Your task to perform on an android device: Open privacy settings Image 0: 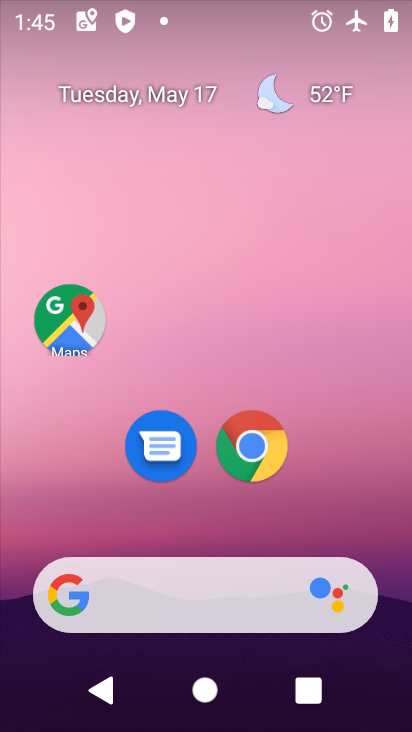
Step 0: drag from (221, 532) to (333, 153)
Your task to perform on an android device: Open privacy settings Image 1: 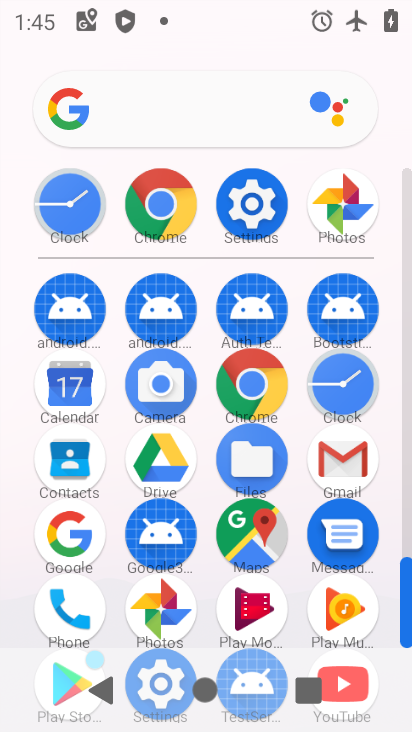
Step 1: click (254, 203)
Your task to perform on an android device: Open privacy settings Image 2: 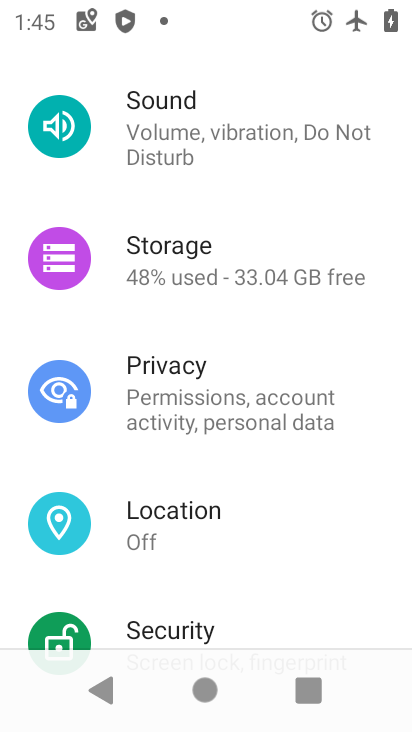
Step 2: click (194, 376)
Your task to perform on an android device: Open privacy settings Image 3: 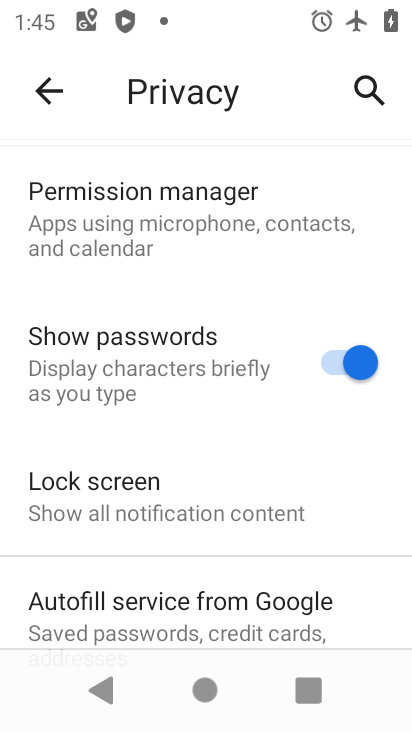
Step 3: task complete